Your task to perform on an android device: change text size in settings app Image 0: 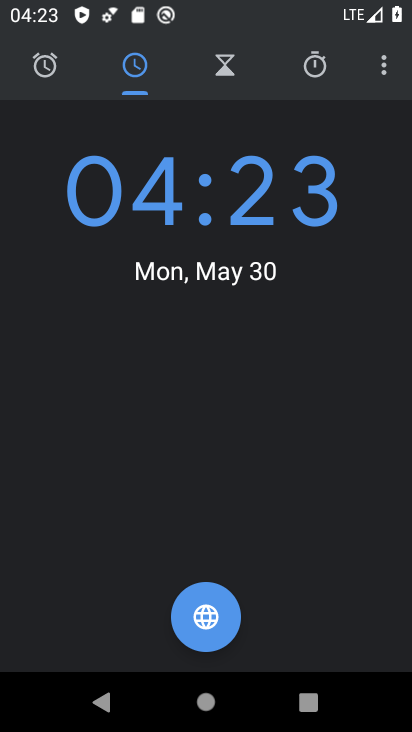
Step 0: press home button
Your task to perform on an android device: change text size in settings app Image 1: 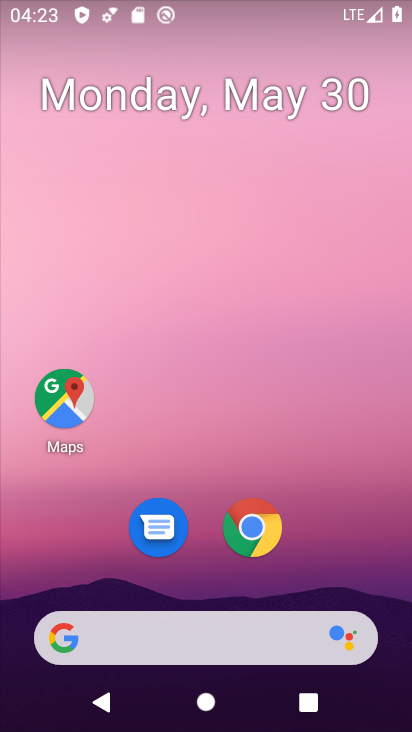
Step 1: drag from (224, 722) to (226, 228)
Your task to perform on an android device: change text size in settings app Image 2: 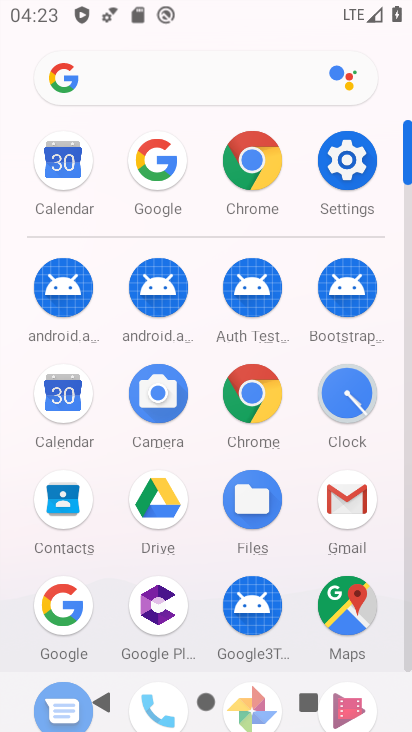
Step 2: click (357, 156)
Your task to perform on an android device: change text size in settings app Image 3: 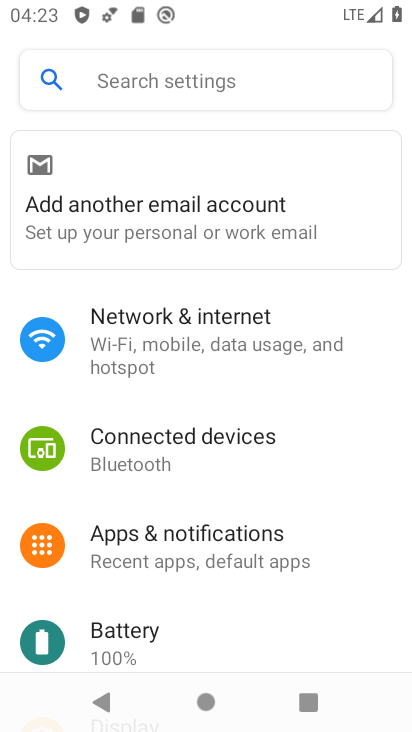
Step 3: drag from (187, 632) to (201, 348)
Your task to perform on an android device: change text size in settings app Image 4: 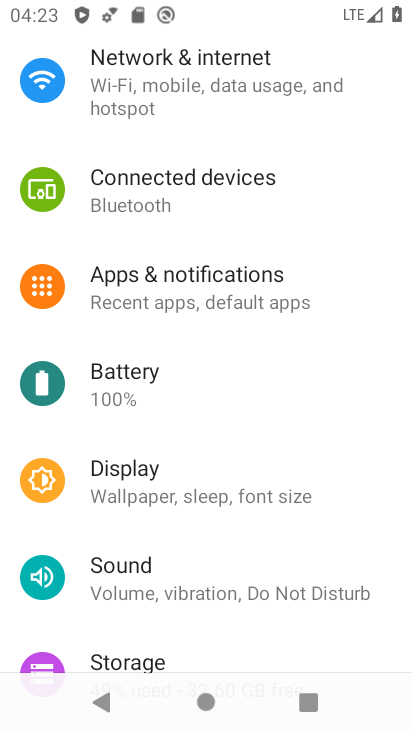
Step 4: click (213, 490)
Your task to perform on an android device: change text size in settings app Image 5: 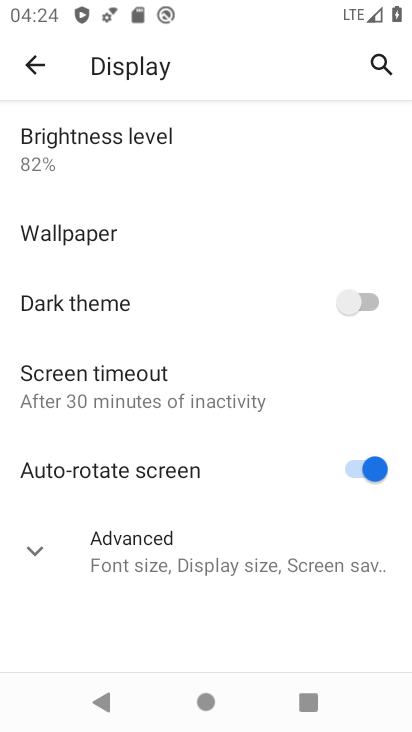
Step 5: click (141, 563)
Your task to perform on an android device: change text size in settings app Image 6: 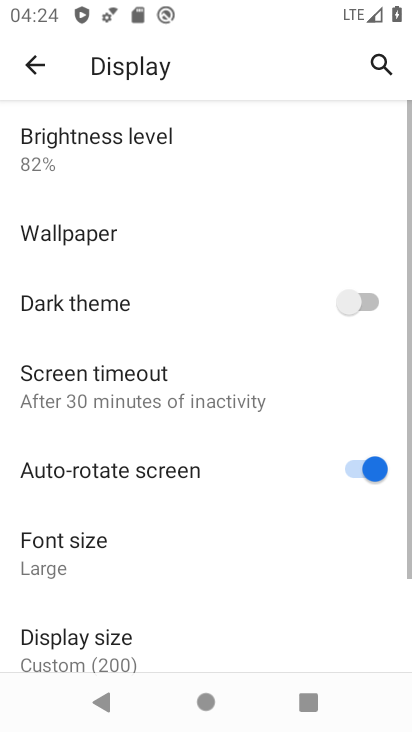
Step 6: click (141, 563)
Your task to perform on an android device: change text size in settings app Image 7: 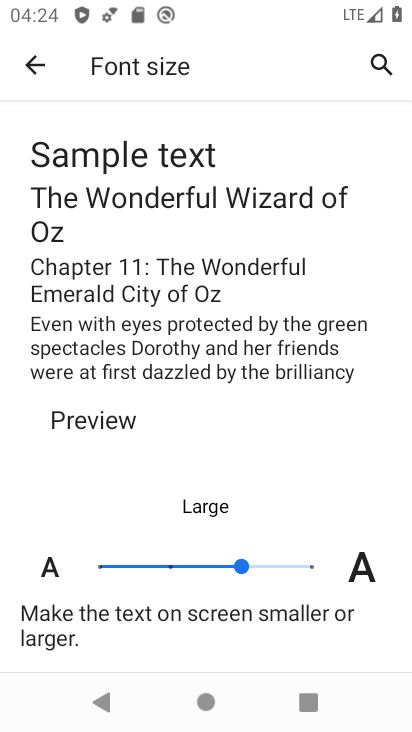
Step 7: click (169, 563)
Your task to perform on an android device: change text size in settings app Image 8: 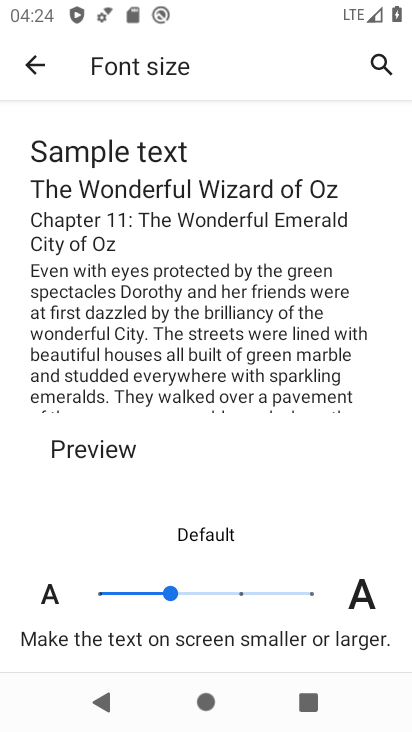
Step 8: task complete